Your task to perform on an android device: Open settings Image 0: 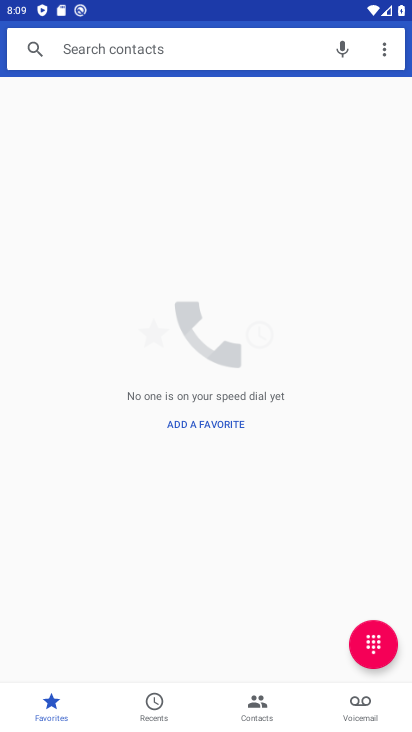
Step 0: press home button
Your task to perform on an android device: Open settings Image 1: 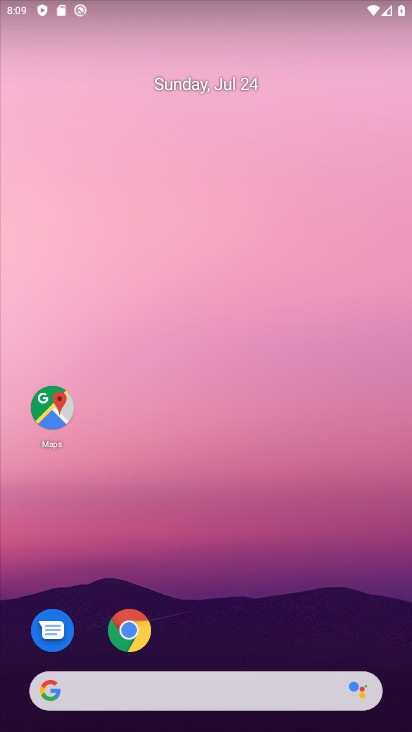
Step 1: drag from (199, 600) to (154, 115)
Your task to perform on an android device: Open settings Image 2: 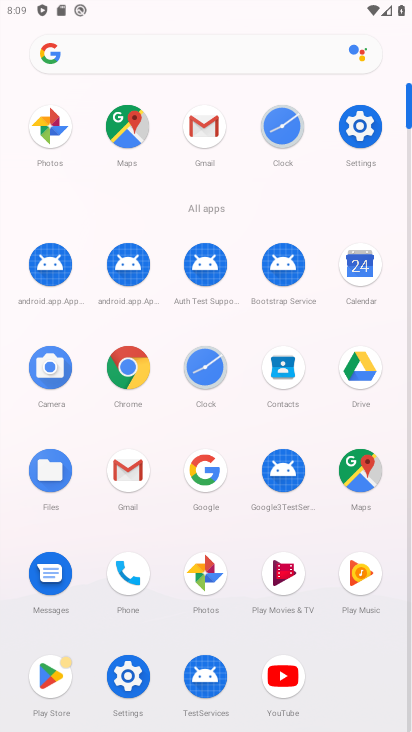
Step 2: click (347, 113)
Your task to perform on an android device: Open settings Image 3: 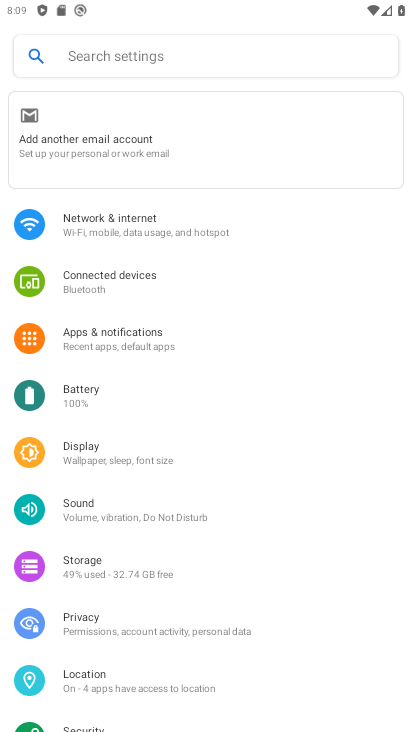
Step 3: task complete